Your task to perform on an android device: check battery use Image 0: 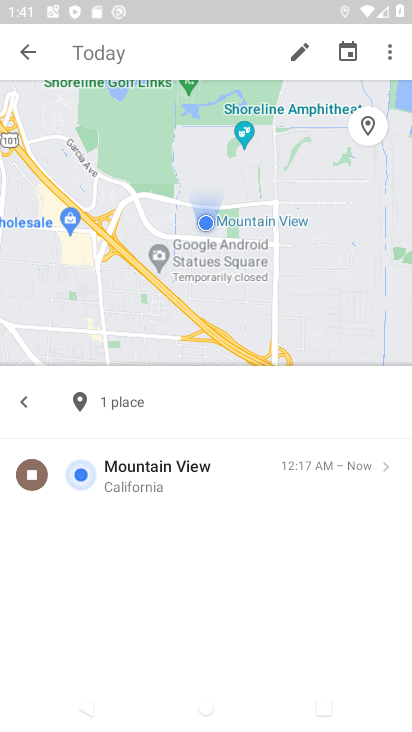
Step 0: press home button
Your task to perform on an android device: check battery use Image 1: 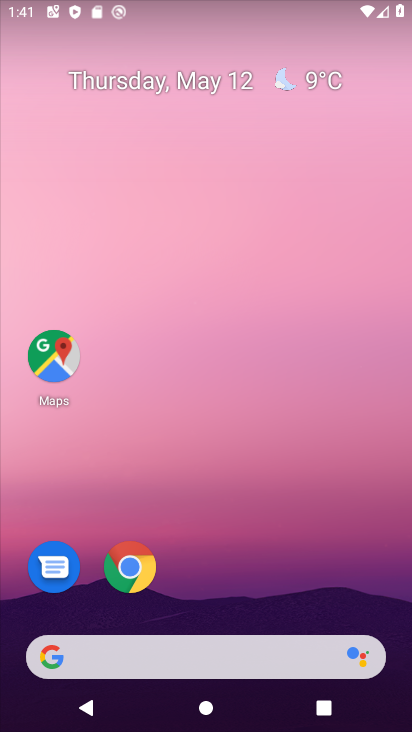
Step 1: drag from (211, 598) to (200, 6)
Your task to perform on an android device: check battery use Image 2: 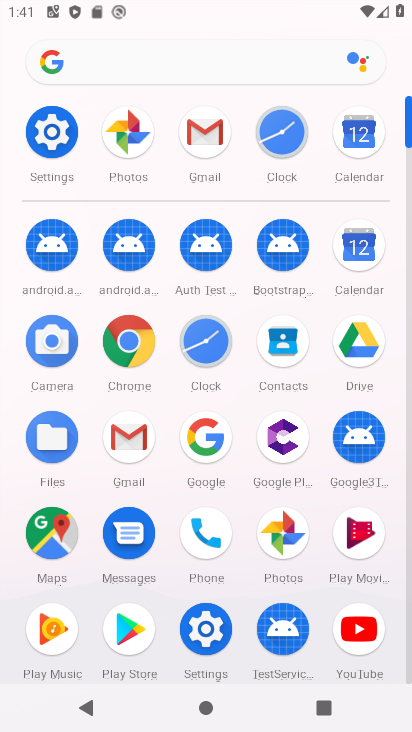
Step 2: click (50, 145)
Your task to perform on an android device: check battery use Image 3: 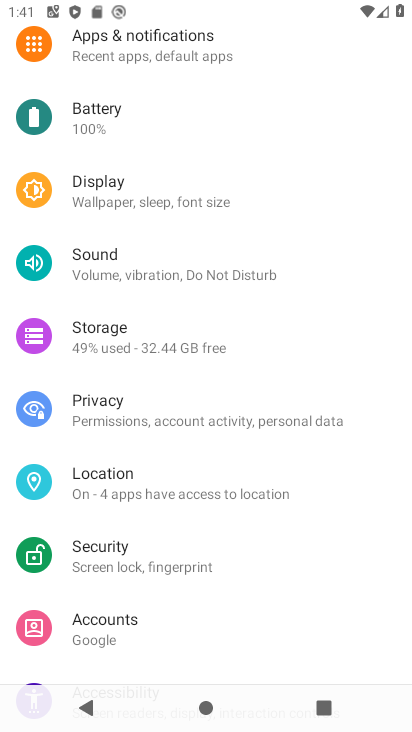
Step 3: click (131, 114)
Your task to perform on an android device: check battery use Image 4: 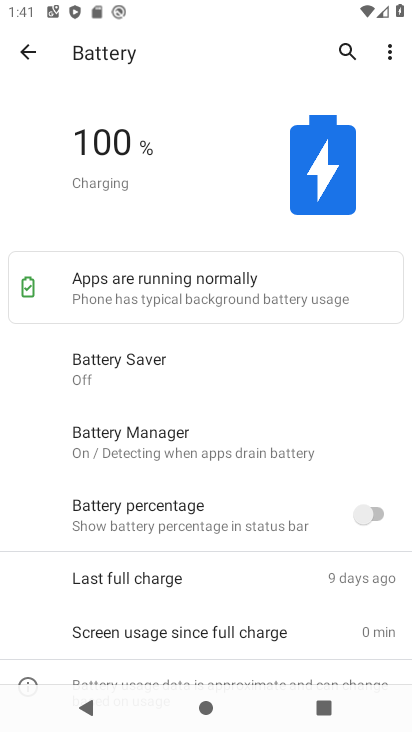
Step 4: click (388, 47)
Your task to perform on an android device: check battery use Image 5: 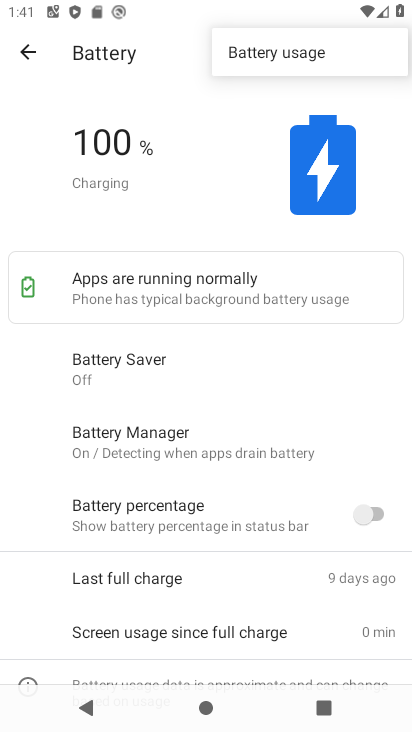
Step 5: click (272, 47)
Your task to perform on an android device: check battery use Image 6: 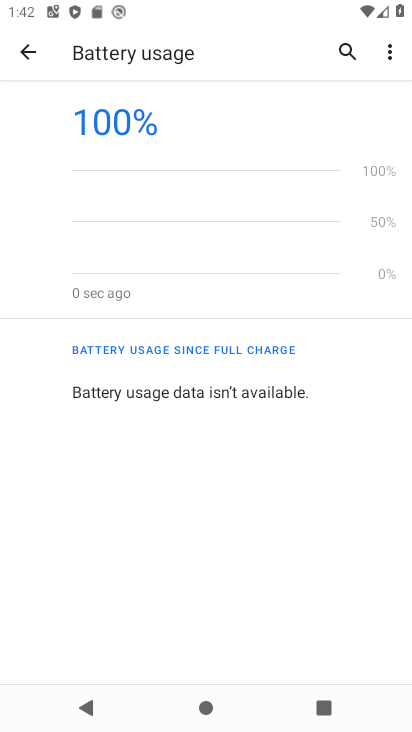
Step 6: task complete